Your task to perform on an android device: Open the calendar app, open the side menu, and click the "Day" option Image 0: 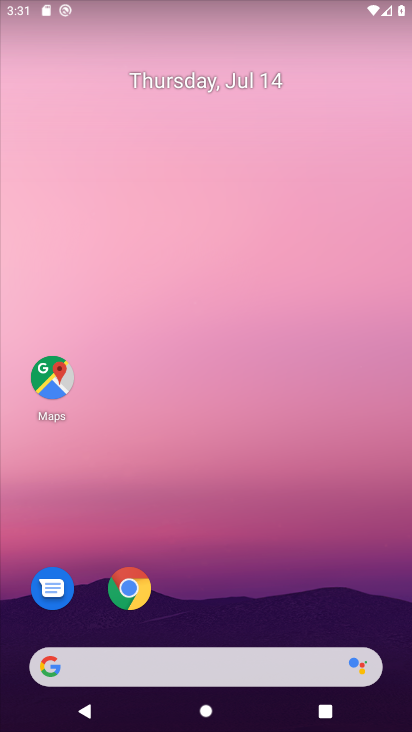
Step 0: drag from (254, 616) to (243, 78)
Your task to perform on an android device: Open the calendar app, open the side menu, and click the "Day" option Image 1: 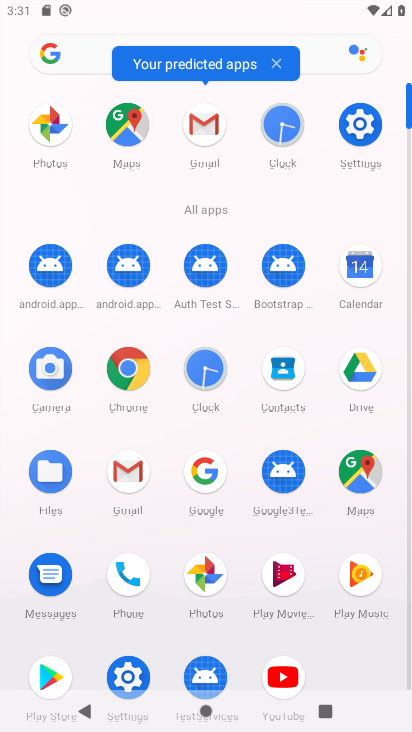
Step 1: click (359, 262)
Your task to perform on an android device: Open the calendar app, open the side menu, and click the "Day" option Image 2: 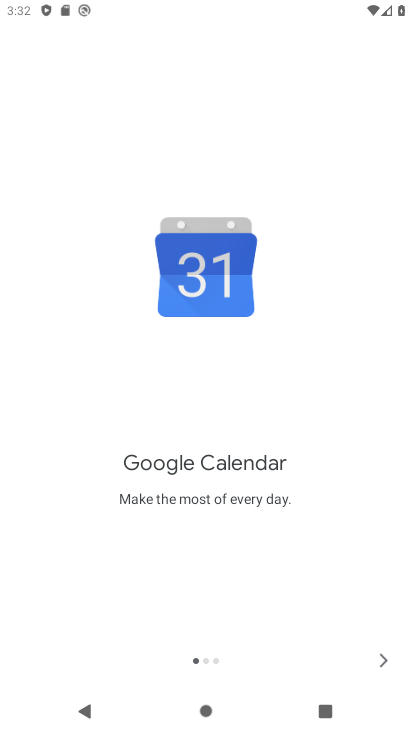
Step 2: click (380, 655)
Your task to perform on an android device: Open the calendar app, open the side menu, and click the "Day" option Image 3: 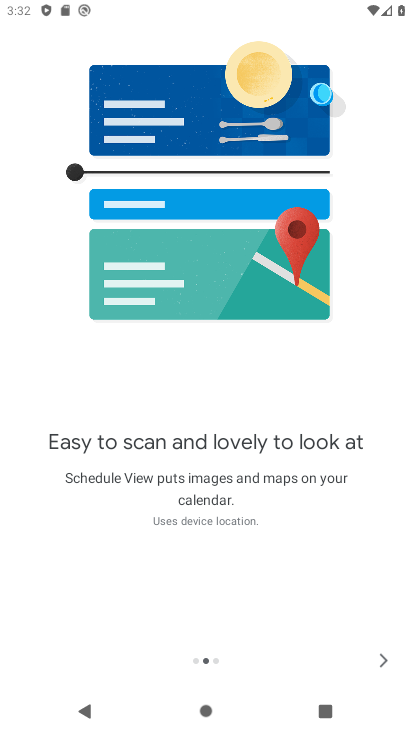
Step 3: click (380, 655)
Your task to perform on an android device: Open the calendar app, open the side menu, and click the "Day" option Image 4: 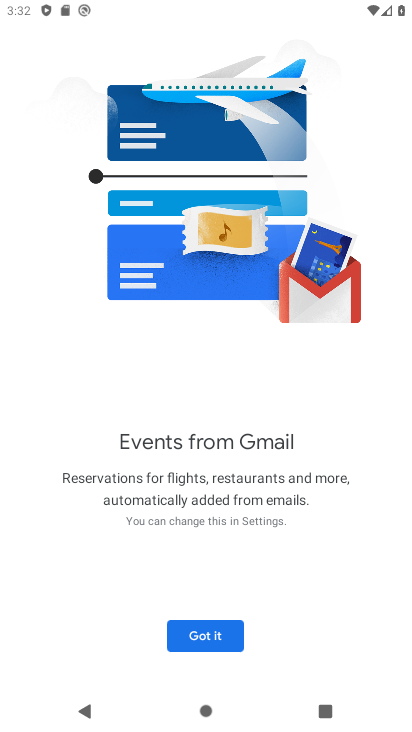
Step 4: click (214, 642)
Your task to perform on an android device: Open the calendar app, open the side menu, and click the "Day" option Image 5: 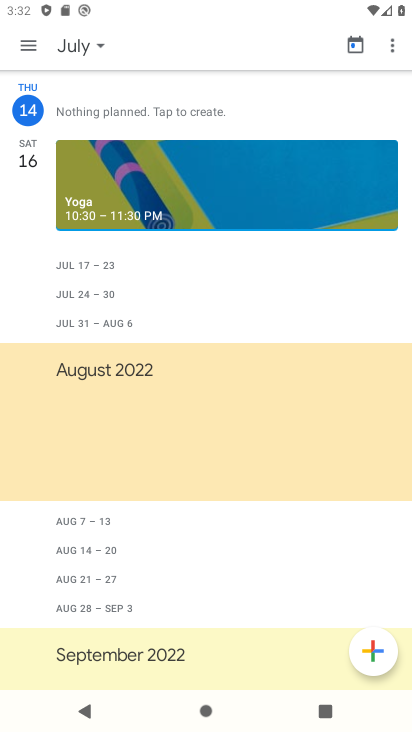
Step 5: click (27, 44)
Your task to perform on an android device: Open the calendar app, open the side menu, and click the "Day" option Image 6: 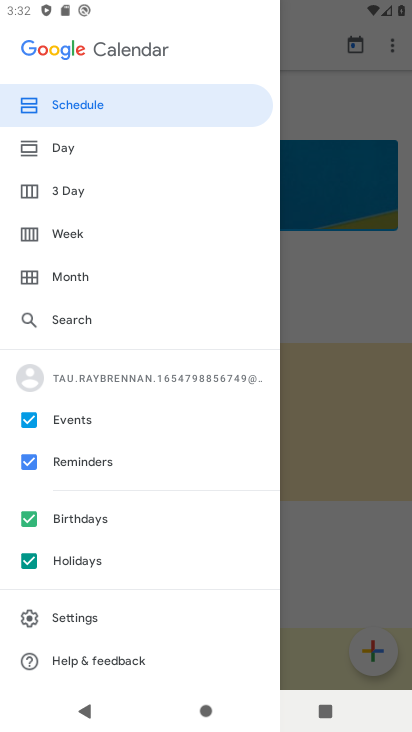
Step 6: click (65, 146)
Your task to perform on an android device: Open the calendar app, open the side menu, and click the "Day" option Image 7: 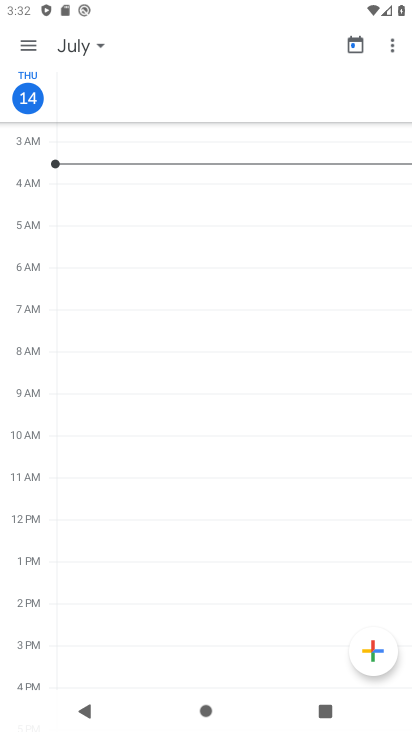
Step 7: task complete